Your task to perform on an android device: set an alarm Image 0: 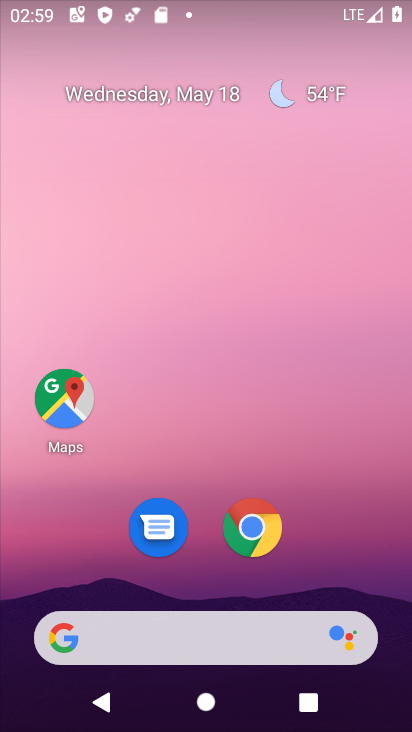
Step 0: drag from (203, 601) to (178, 61)
Your task to perform on an android device: set an alarm Image 1: 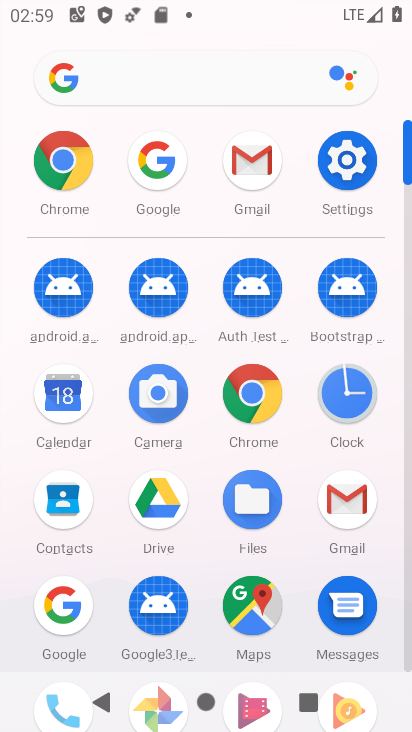
Step 1: click (356, 397)
Your task to perform on an android device: set an alarm Image 2: 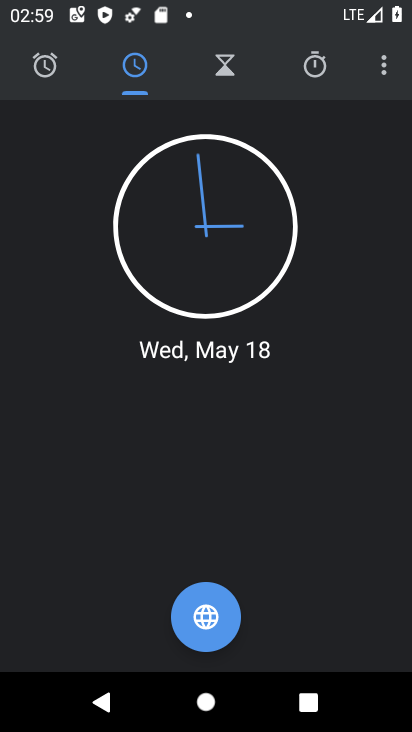
Step 2: click (34, 67)
Your task to perform on an android device: set an alarm Image 3: 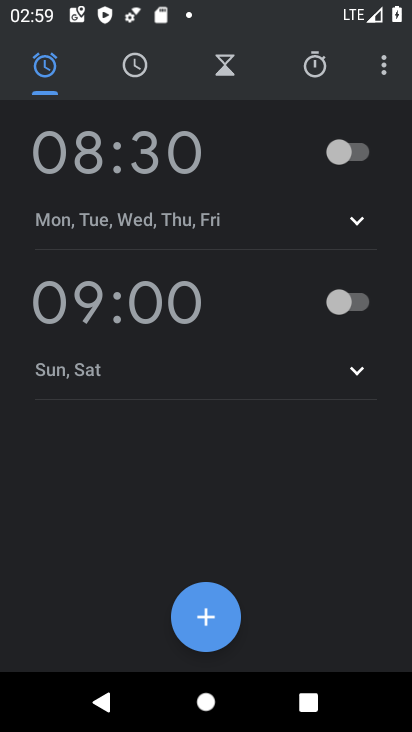
Step 3: task complete